Your task to perform on an android device: Search for seafood restaurants on Google Maps Image 0: 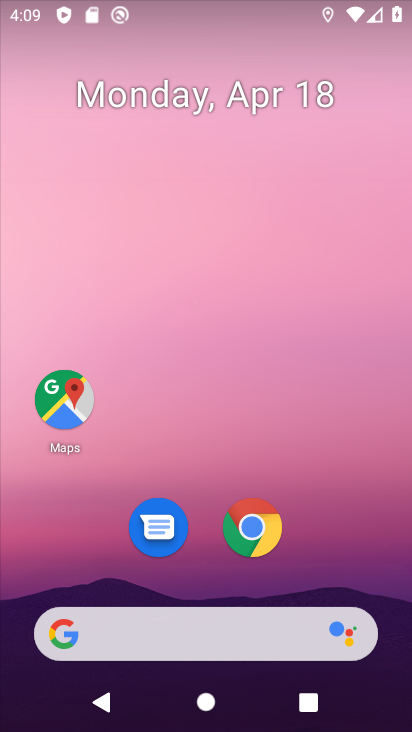
Step 0: click (66, 391)
Your task to perform on an android device: Search for seafood restaurants on Google Maps Image 1: 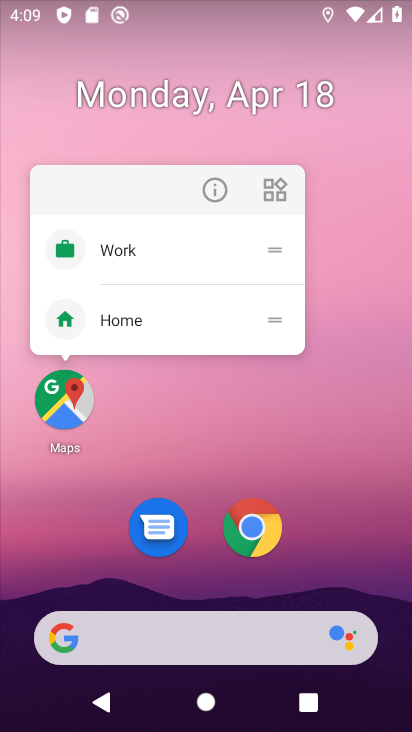
Step 1: click (64, 398)
Your task to perform on an android device: Search for seafood restaurants on Google Maps Image 2: 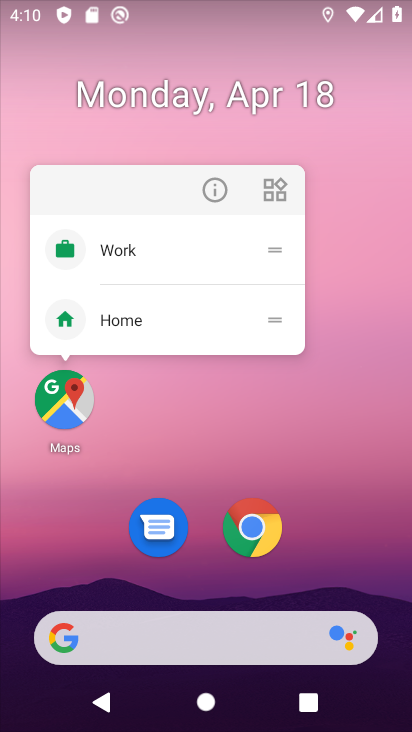
Step 2: click (62, 400)
Your task to perform on an android device: Search for seafood restaurants on Google Maps Image 3: 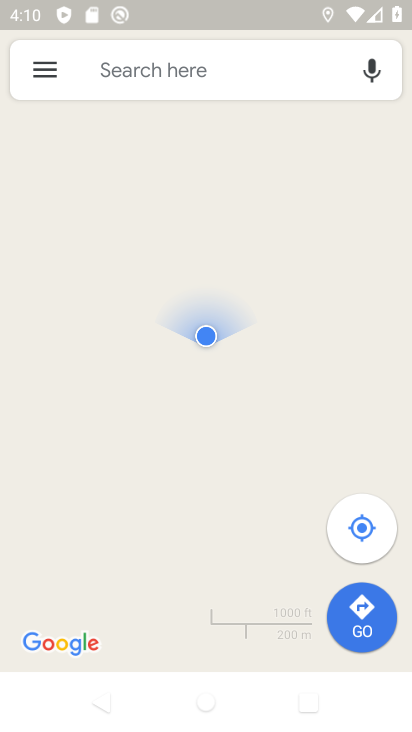
Step 3: click (145, 67)
Your task to perform on an android device: Search for seafood restaurants on Google Maps Image 4: 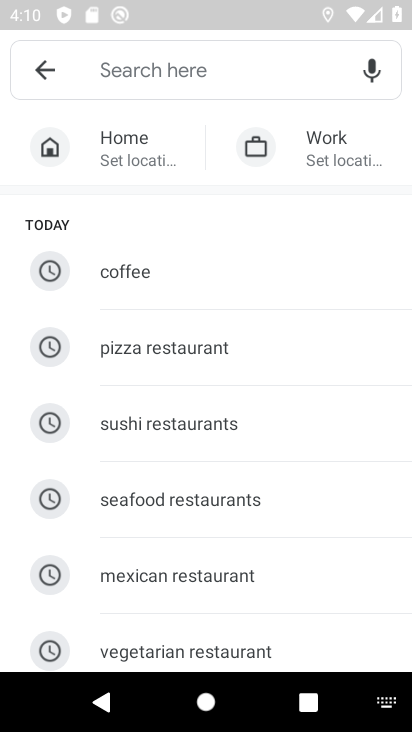
Step 4: click (151, 494)
Your task to perform on an android device: Search for seafood restaurants on Google Maps Image 5: 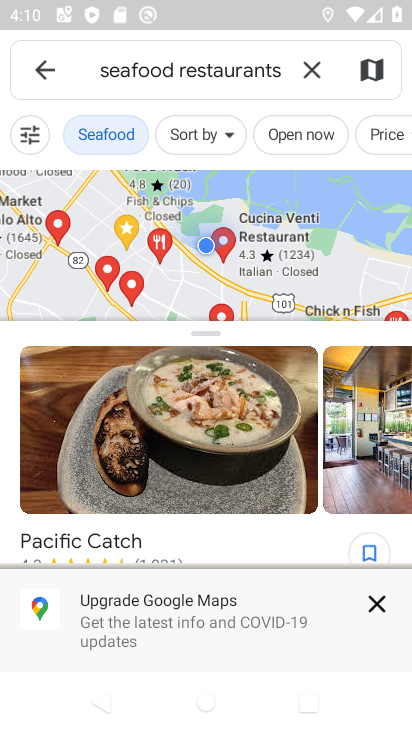
Step 5: drag from (219, 438) to (219, 47)
Your task to perform on an android device: Search for seafood restaurants on Google Maps Image 6: 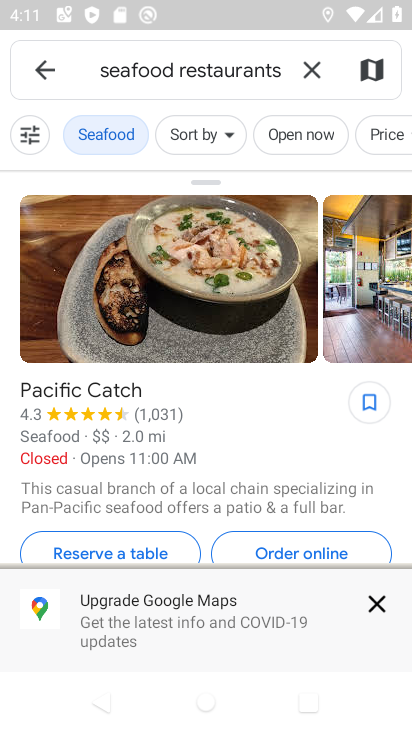
Step 6: drag from (207, 449) to (206, 23)
Your task to perform on an android device: Search for seafood restaurants on Google Maps Image 7: 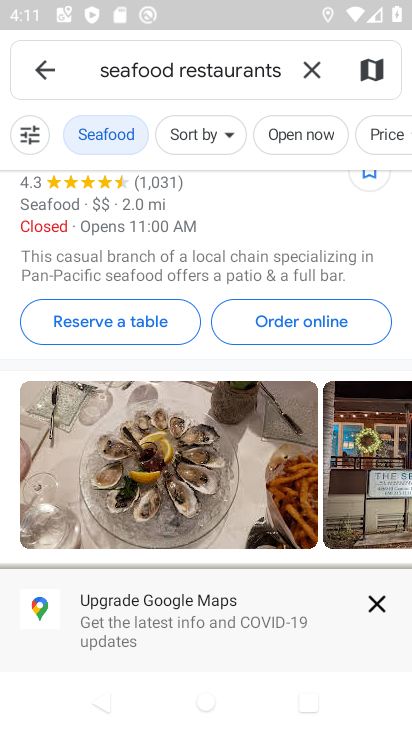
Step 7: click (380, 594)
Your task to perform on an android device: Search for seafood restaurants on Google Maps Image 8: 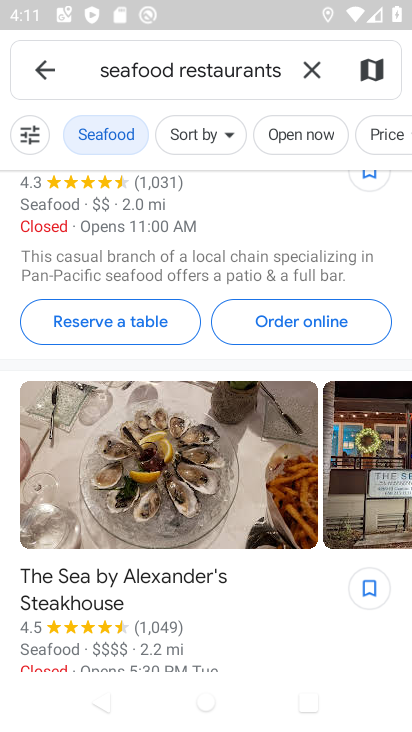
Step 8: task complete